Your task to perform on an android device: Go to Google maps Image 0: 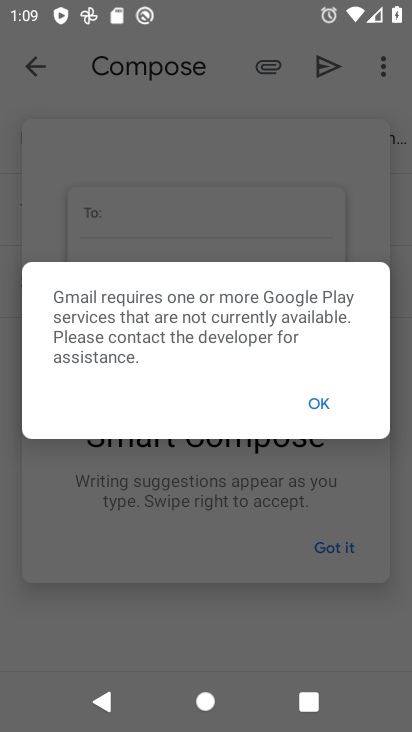
Step 0: press home button
Your task to perform on an android device: Go to Google maps Image 1: 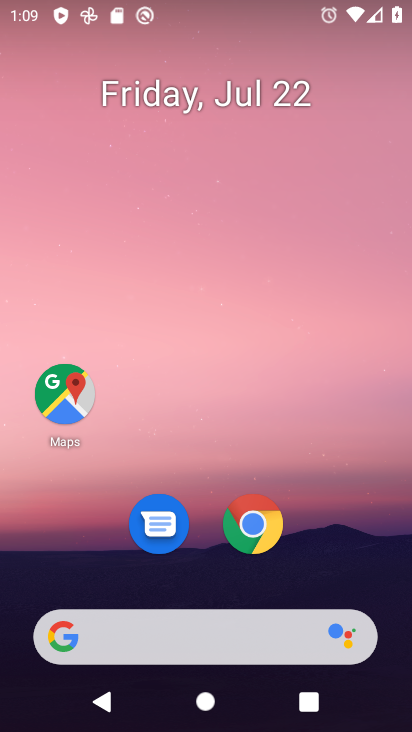
Step 1: click (72, 404)
Your task to perform on an android device: Go to Google maps Image 2: 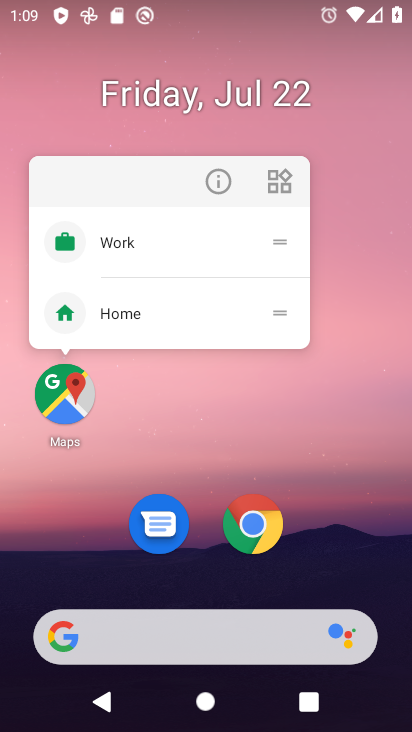
Step 2: click (65, 401)
Your task to perform on an android device: Go to Google maps Image 3: 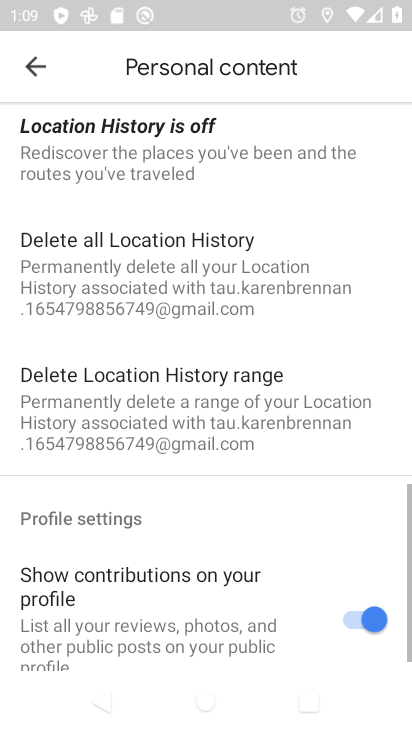
Step 3: click (39, 63)
Your task to perform on an android device: Go to Google maps Image 4: 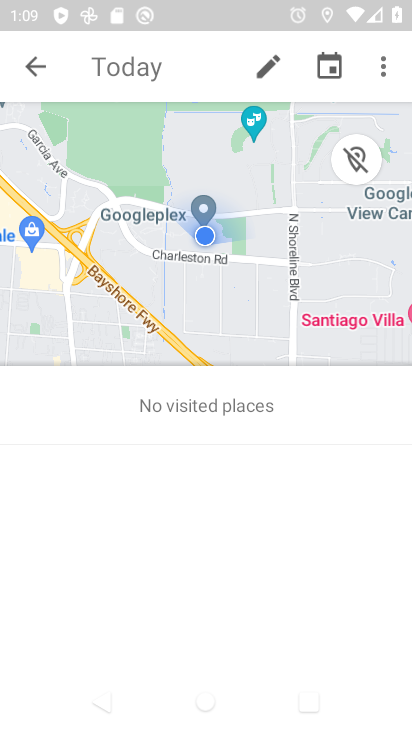
Step 4: click (38, 63)
Your task to perform on an android device: Go to Google maps Image 5: 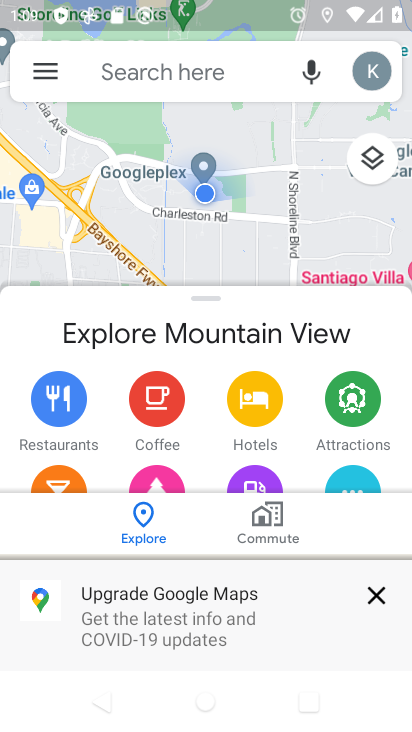
Step 5: task complete